Your task to perform on an android device: Go to display settings Image 0: 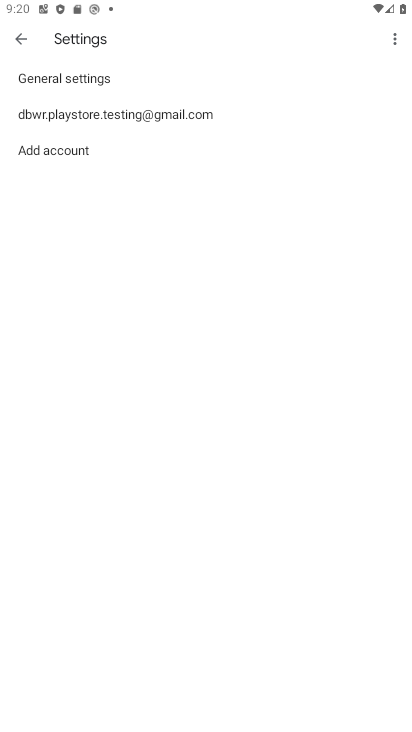
Step 0: press home button
Your task to perform on an android device: Go to display settings Image 1: 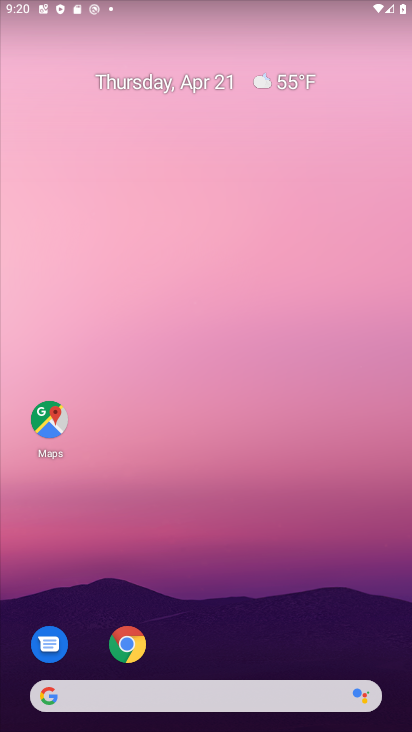
Step 1: drag from (299, 550) to (335, 189)
Your task to perform on an android device: Go to display settings Image 2: 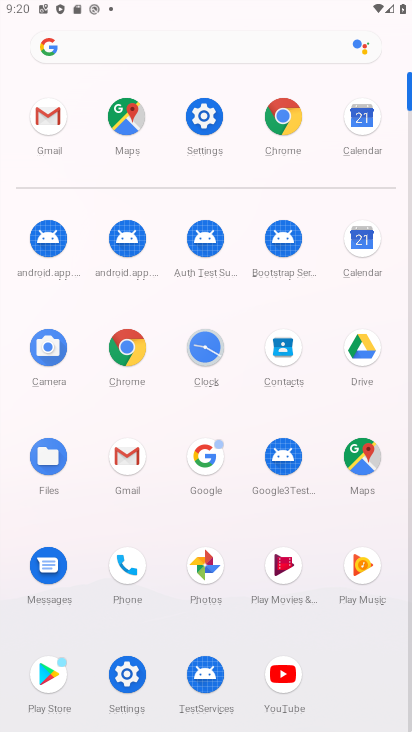
Step 2: click (130, 677)
Your task to perform on an android device: Go to display settings Image 3: 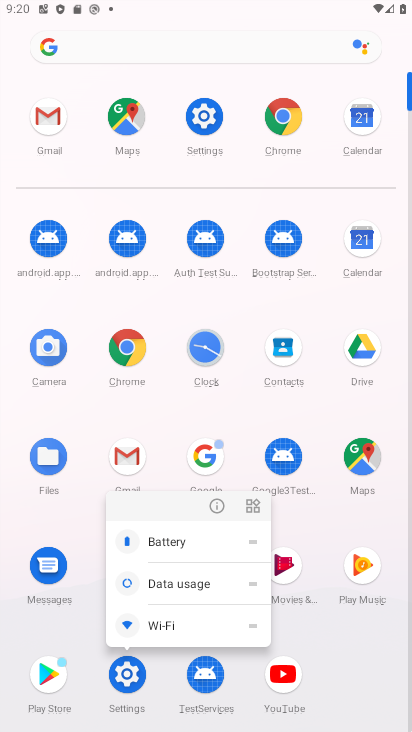
Step 3: click (121, 679)
Your task to perform on an android device: Go to display settings Image 4: 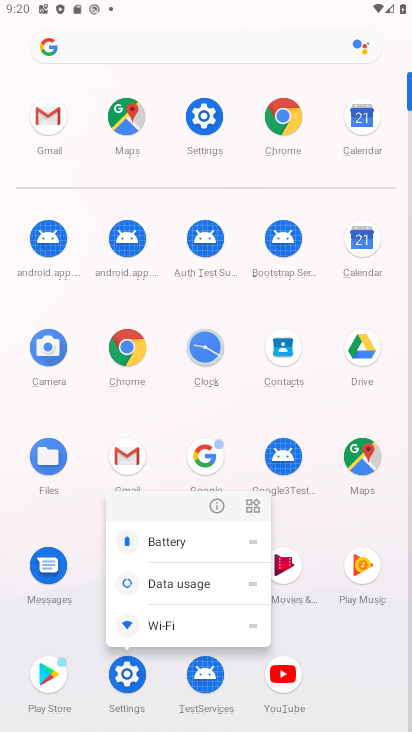
Step 4: click (123, 675)
Your task to perform on an android device: Go to display settings Image 5: 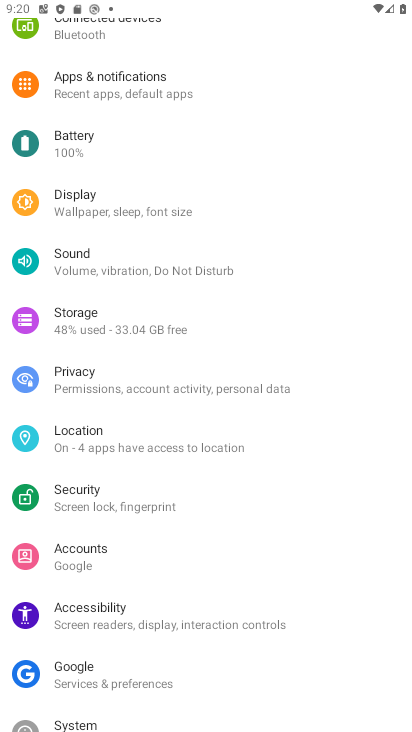
Step 5: click (143, 200)
Your task to perform on an android device: Go to display settings Image 6: 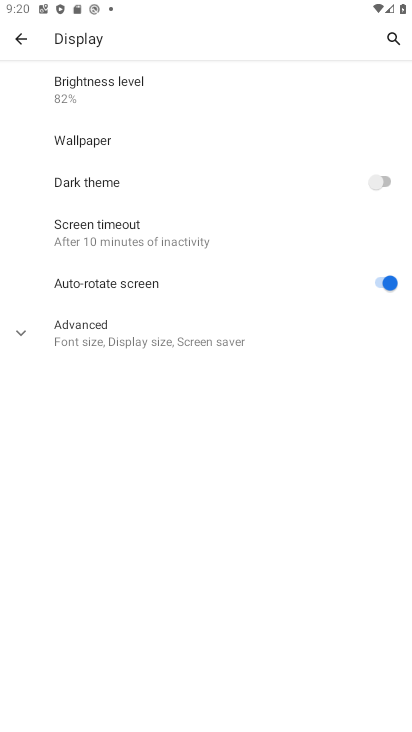
Step 6: task complete